Your task to perform on an android device: toggle sleep mode Image 0: 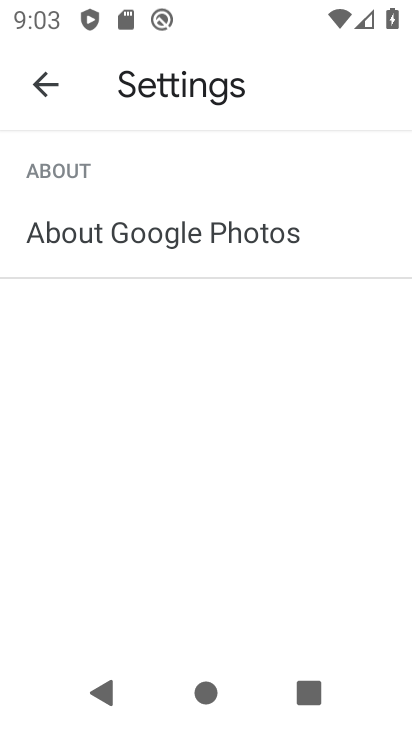
Step 0: press back button
Your task to perform on an android device: toggle sleep mode Image 1: 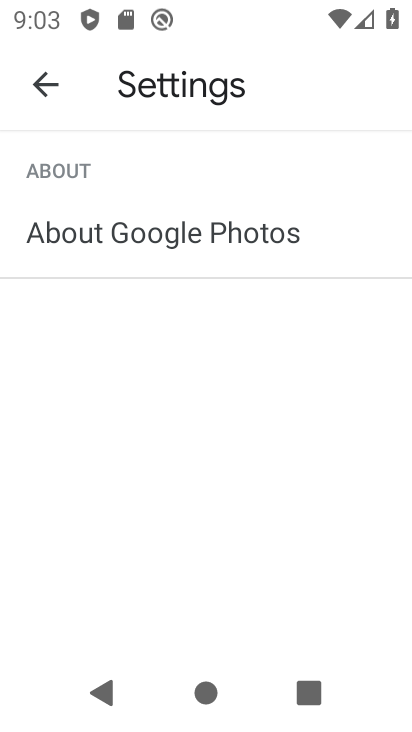
Step 1: press back button
Your task to perform on an android device: toggle sleep mode Image 2: 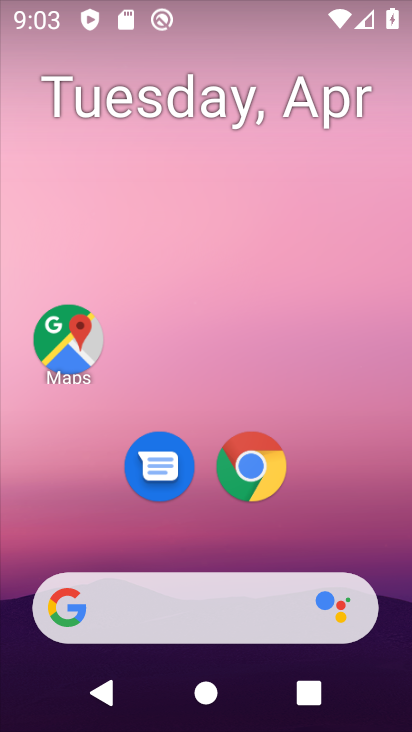
Step 2: drag from (328, 479) to (326, 244)
Your task to perform on an android device: toggle sleep mode Image 3: 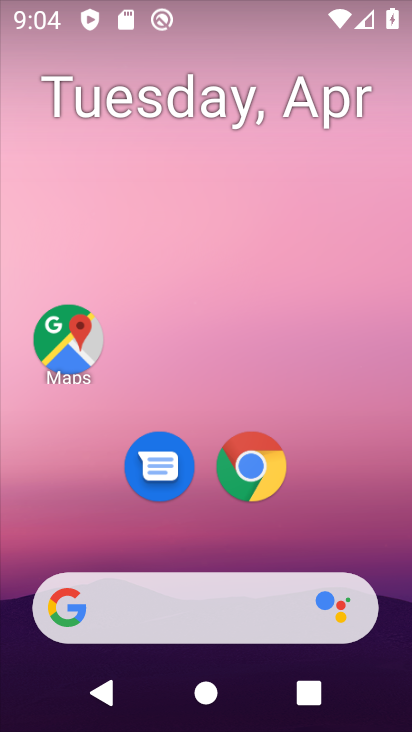
Step 3: drag from (301, 506) to (315, 183)
Your task to perform on an android device: toggle sleep mode Image 4: 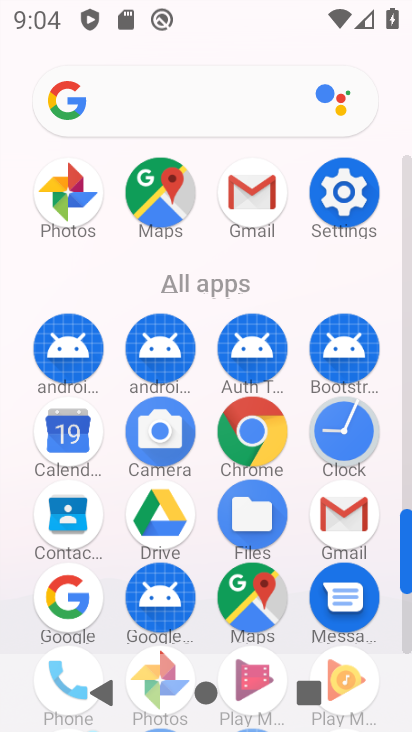
Step 4: click (348, 233)
Your task to perform on an android device: toggle sleep mode Image 5: 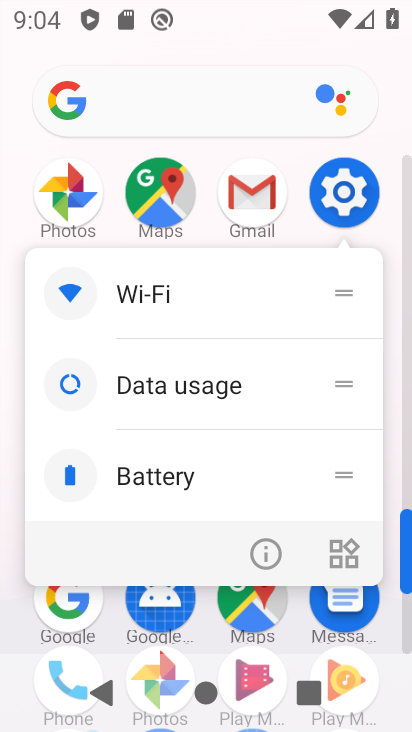
Step 5: click (348, 213)
Your task to perform on an android device: toggle sleep mode Image 6: 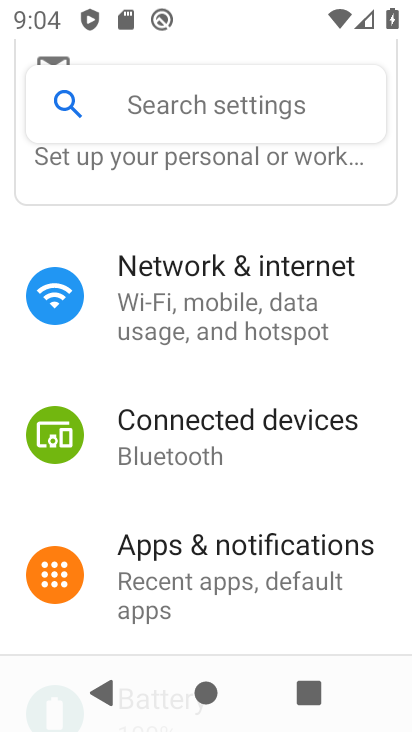
Step 6: drag from (208, 539) to (210, 271)
Your task to perform on an android device: toggle sleep mode Image 7: 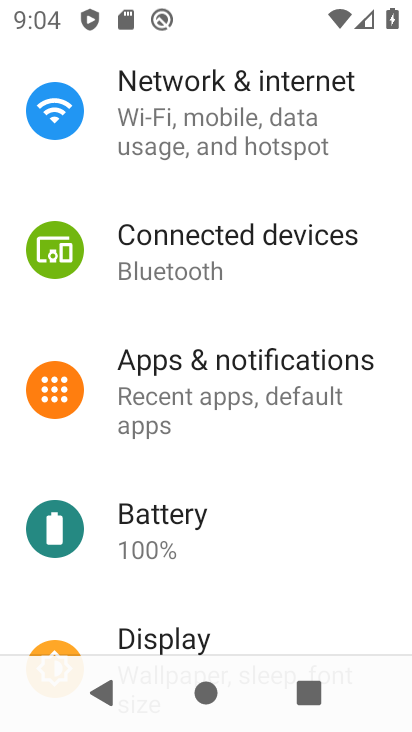
Step 7: drag from (271, 575) to (299, 470)
Your task to perform on an android device: toggle sleep mode Image 8: 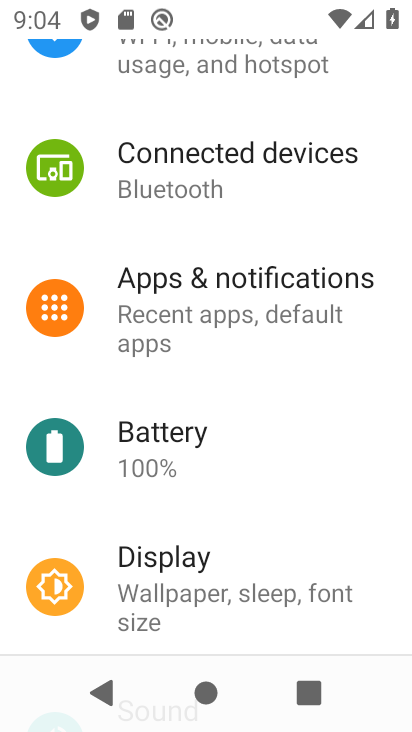
Step 8: click (240, 590)
Your task to perform on an android device: toggle sleep mode Image 9: 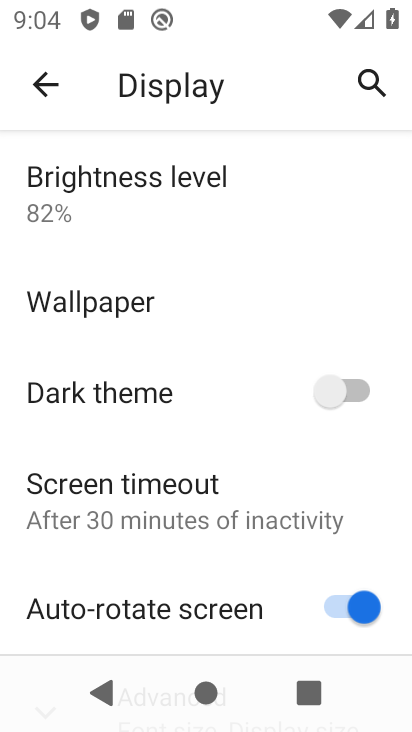
Step 9: click (247, 532)
Your task to perform on an android device: toggle sleep mode Image 10: 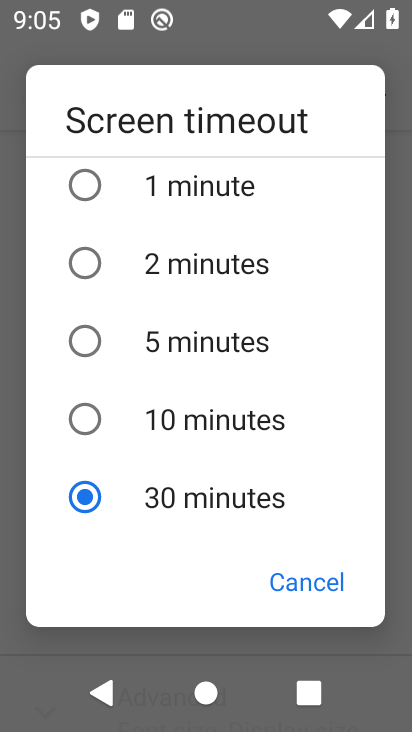
Step 10: drag from (268, 211) to (223, 662)
Your task to perform on an android device: toggle sleep mode Image 11: 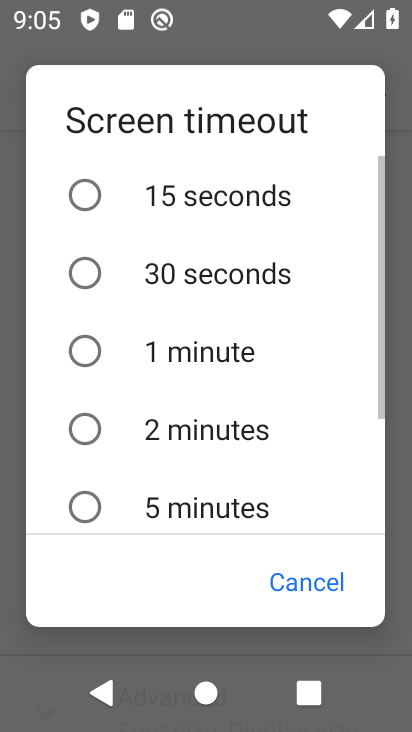
Step 11: click (162, 186)
Your task to perform on an android device: toggle sleep mode Image 12: 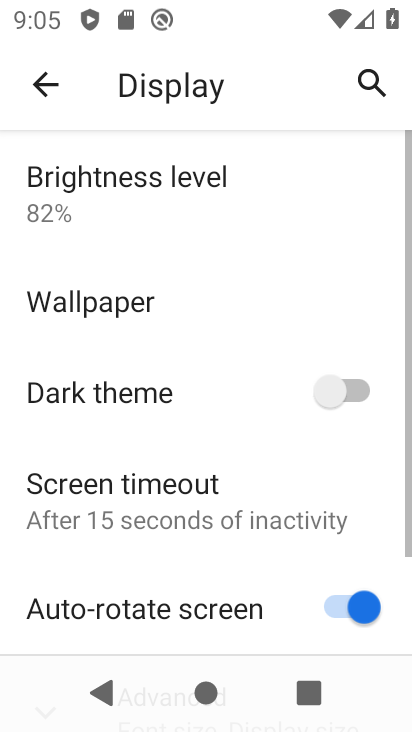
Step 12: task complete